Your task to perform on an android device: Open location settings Image 0: 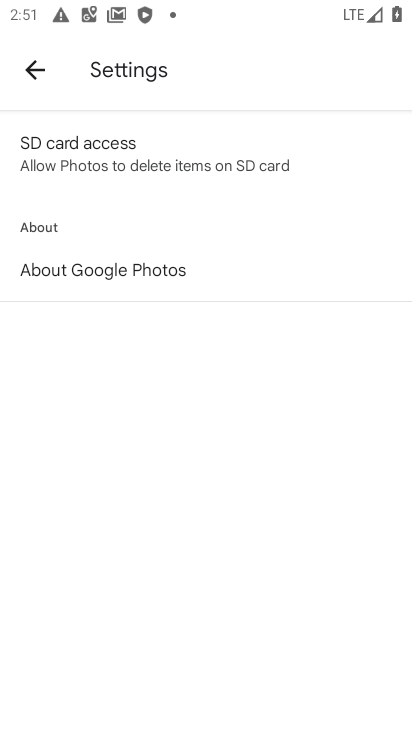
Step 0: press home button
Your task to perform on an android device: Open location settings Image 1: 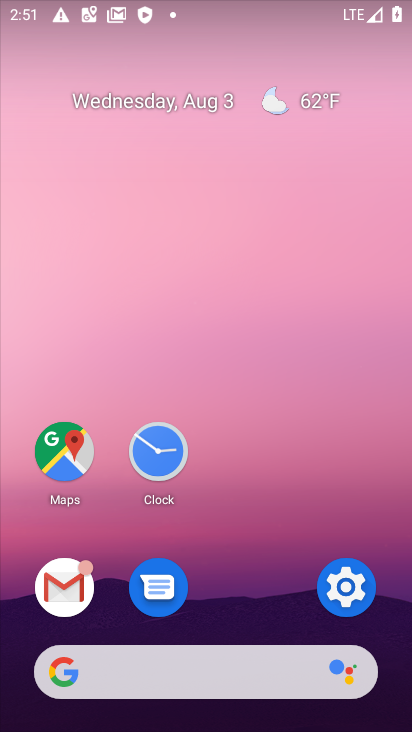
Step 1: click (337, 586)
Your task to perform on an android device: Open location settings Image 2: 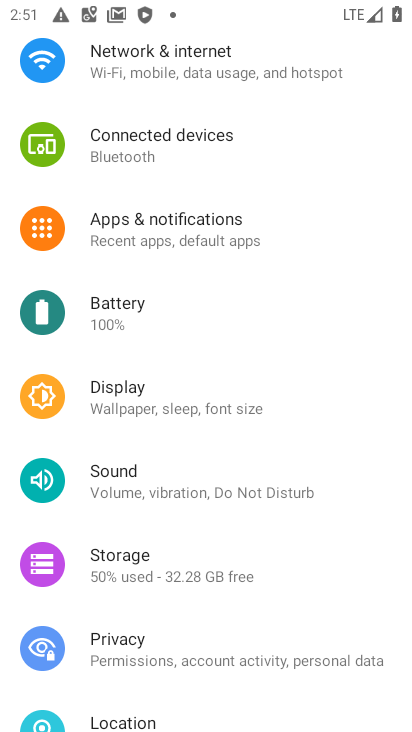
Step 2: click (123, 715)
Your task to perform on an android device: Open location settings Image 3: 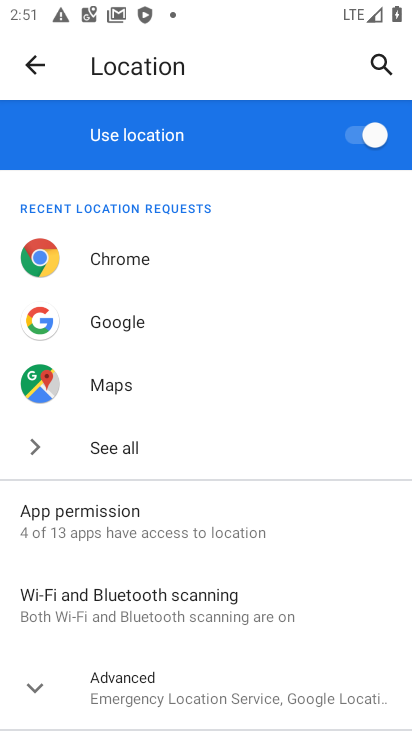
Step 3: task complete